Your task to perform on an android device: Go to sound settings Image 0: 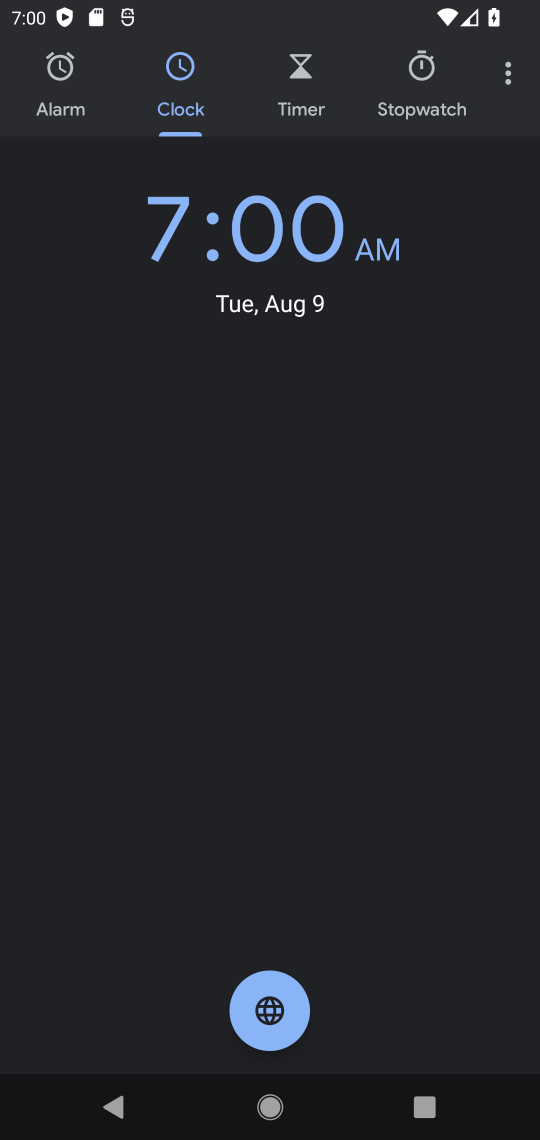
Step 0: press back button
Your task to perform on an android device: Go to sound settings Image 1: 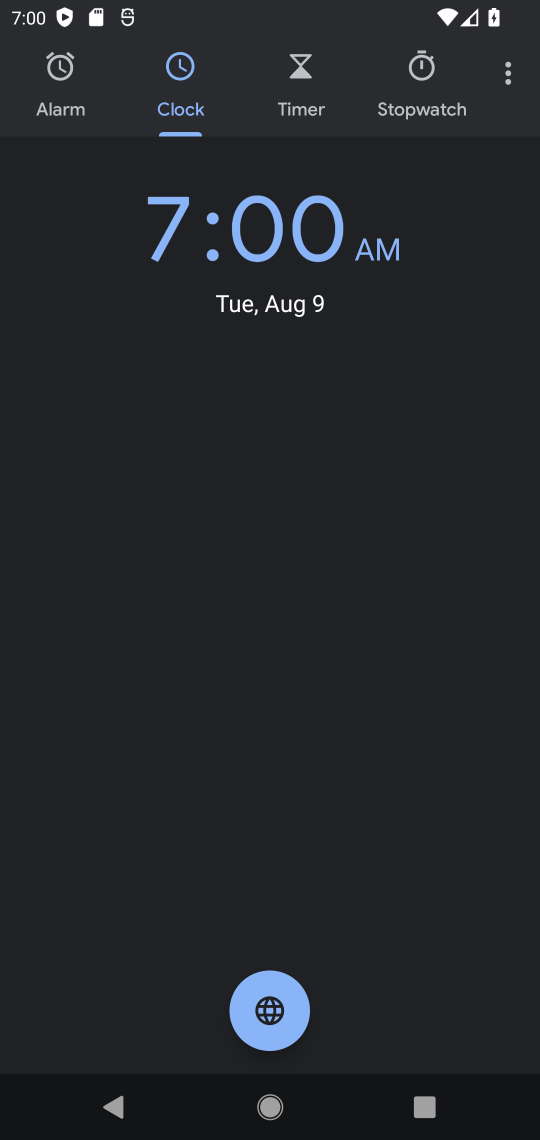
Step 1: press home button
Your task to perform on an android device: Go to sound settings Image 2: 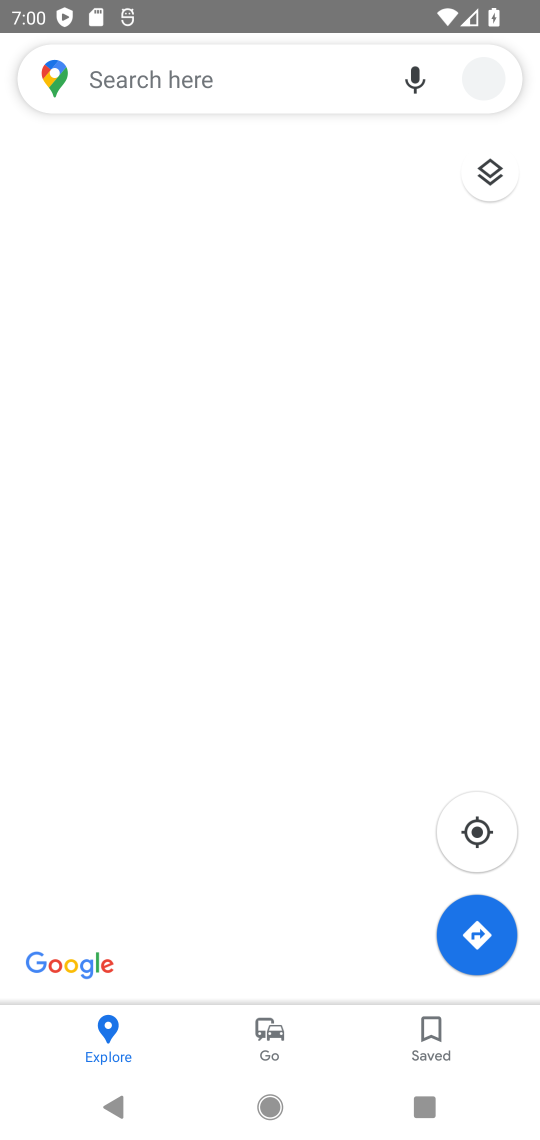
Step 2: press back button
Your task to perform on an android device: Go to sound settings Image 3: 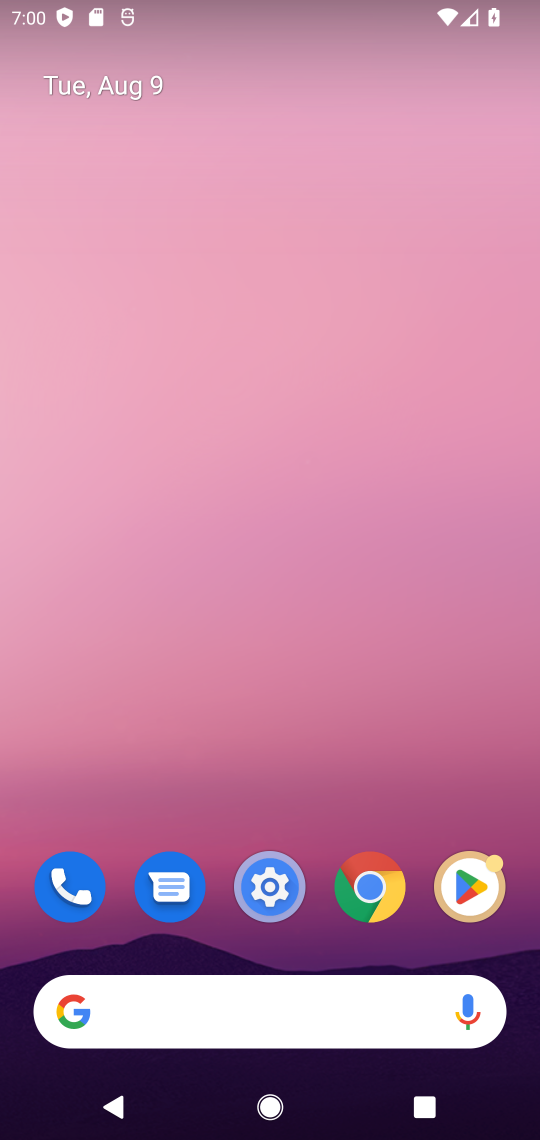
Step 3: drag from (322, 934) to (225, 294)
Your task to perform on an android device: Go to sound settings Image 4: 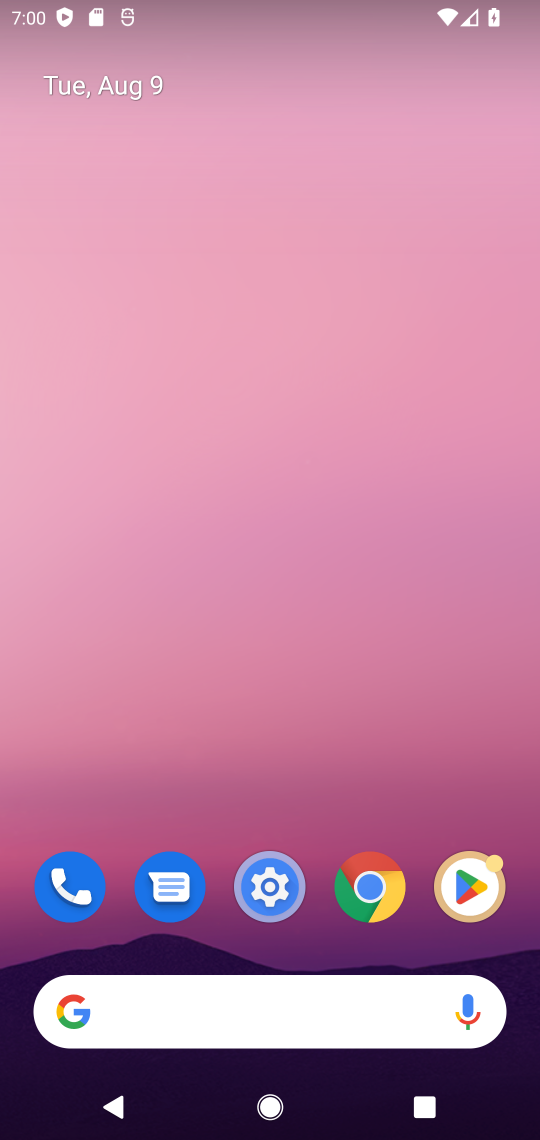
Step 4: drag from (333, 872) to (287, 540)
Your task to perform on an android device: Go to sound settings Image 5: 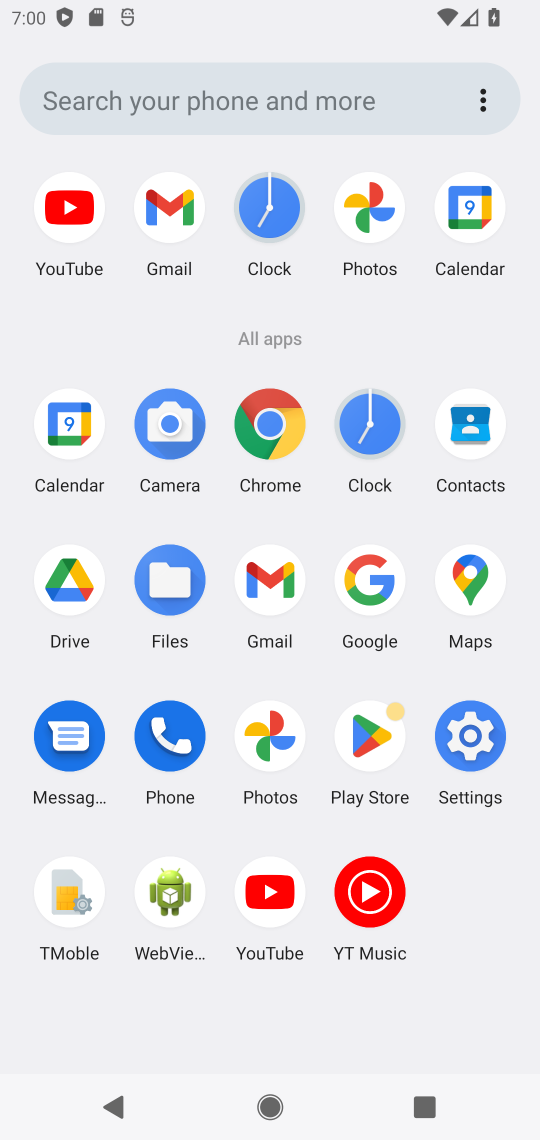
Step 5: click (479, 741)
Your task to perform on an android device: Go to sound settings Image 6: 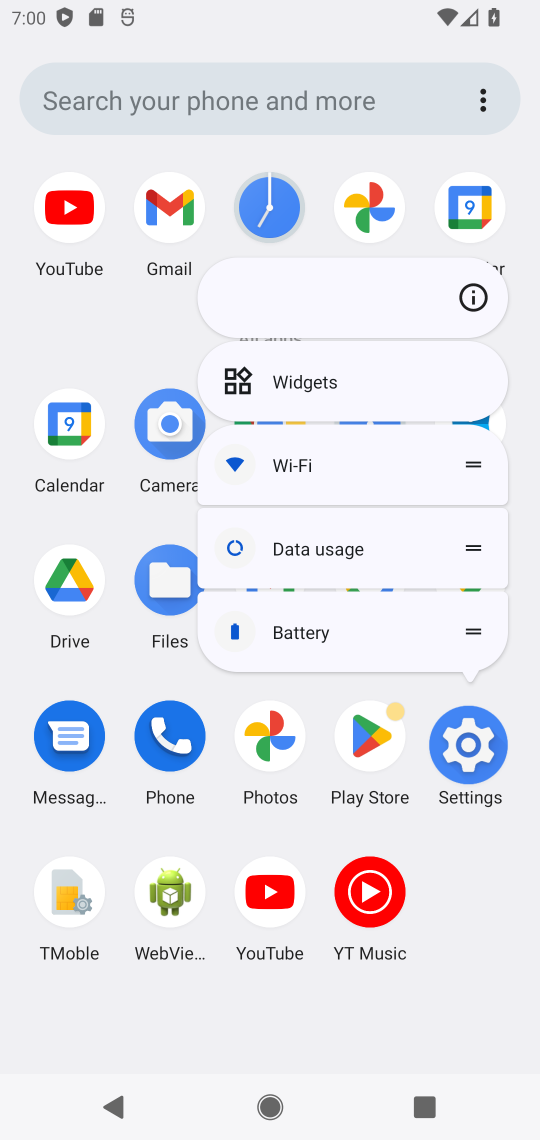
Step 6: click (471, 741)
Your task to perform on an android device: Go to sound settings Image 7: 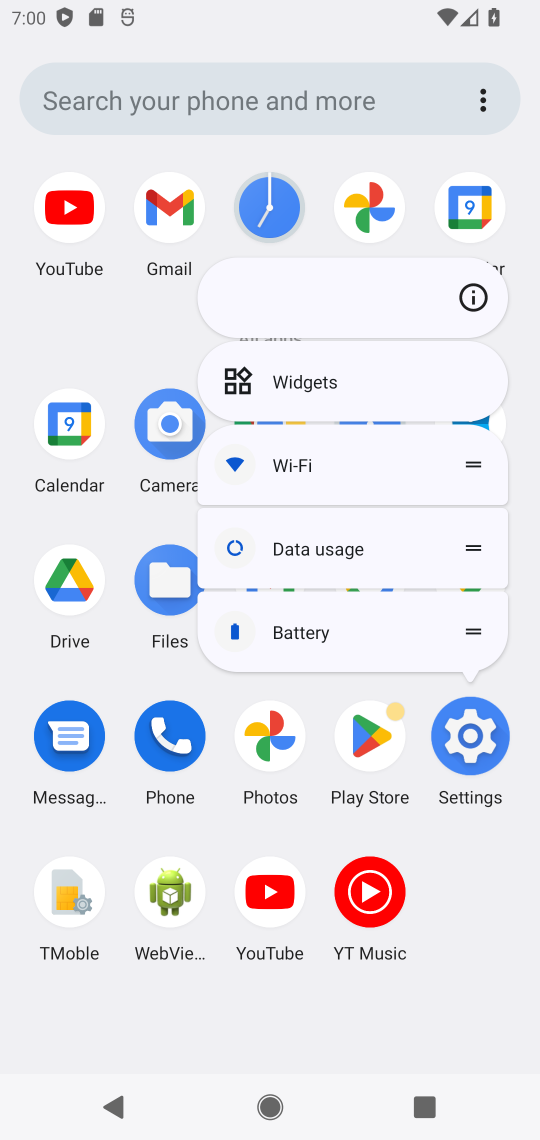
Step 7: click (471, 741)
Your task to perform on an android device: Go to sound settings Image 8: 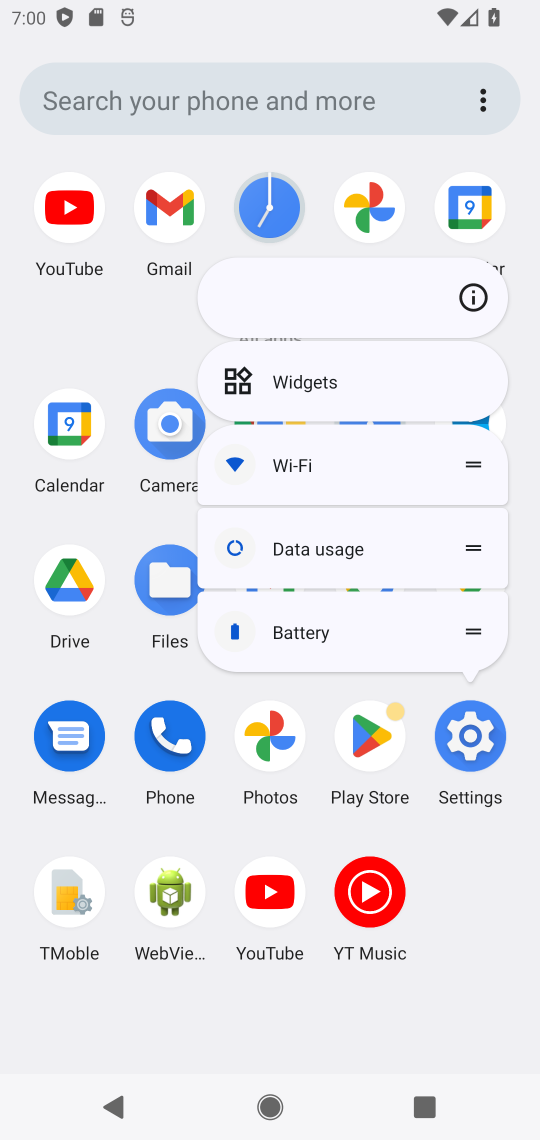
Step 8: click (464, 726)
Your task to perform on an android device: Go to sound settings Image 9: 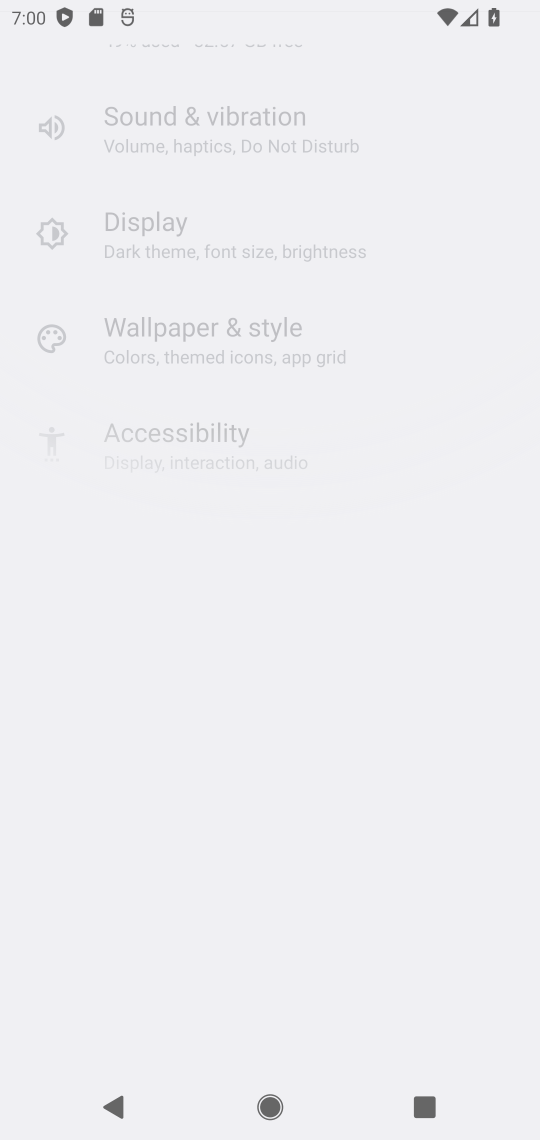
Step 9: click (463, 725)
Your task to perform on an android device: Go to sound settings Image 10: 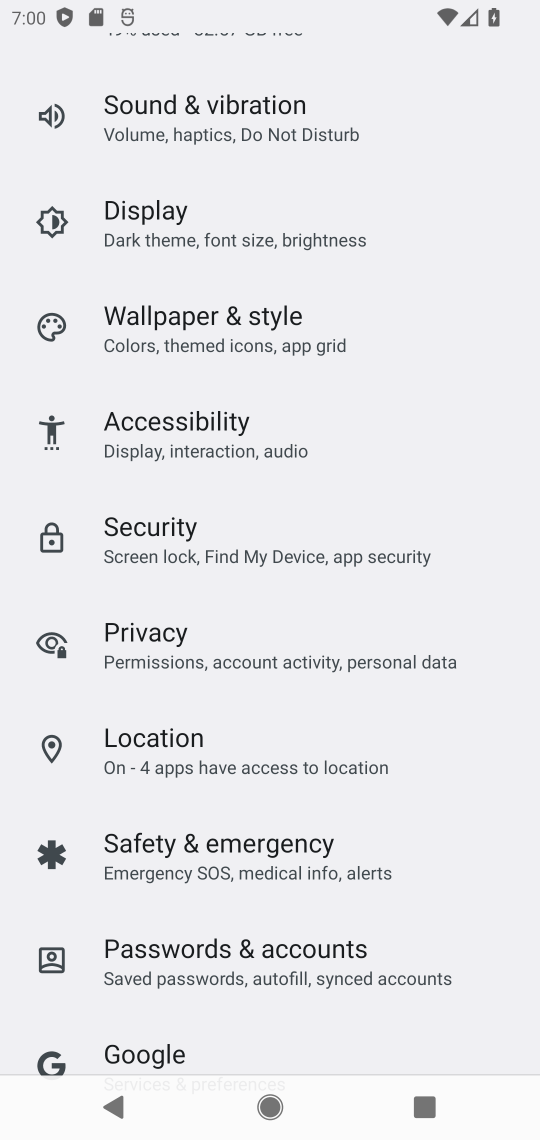
Step 10: click (463, 725)
Your task to perform on an android device: Go to sound settings Image 11: 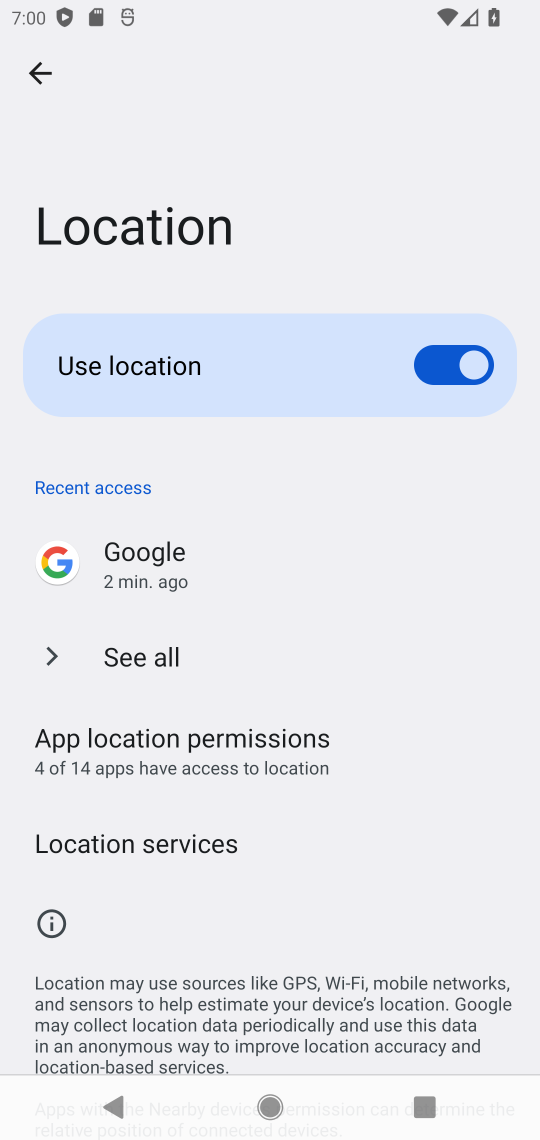
Step 11: click (43, 75)
Your task to perform on an android device: Go to sound settings Image 12: 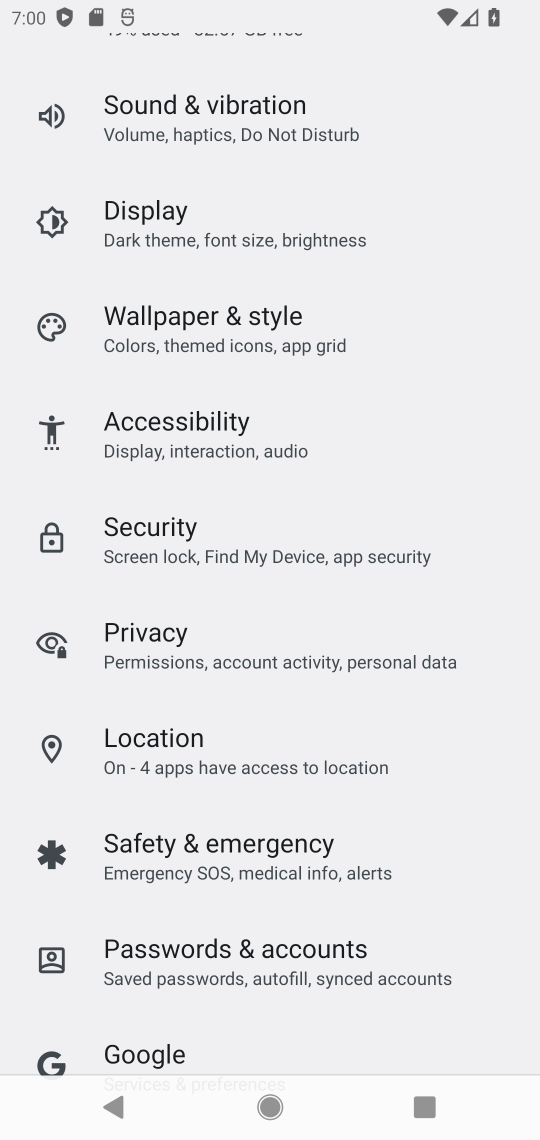
Step 12: drag from (210, 565) to (216, 726)
Your task to perform on an android device: Go to sound settings Image 13: 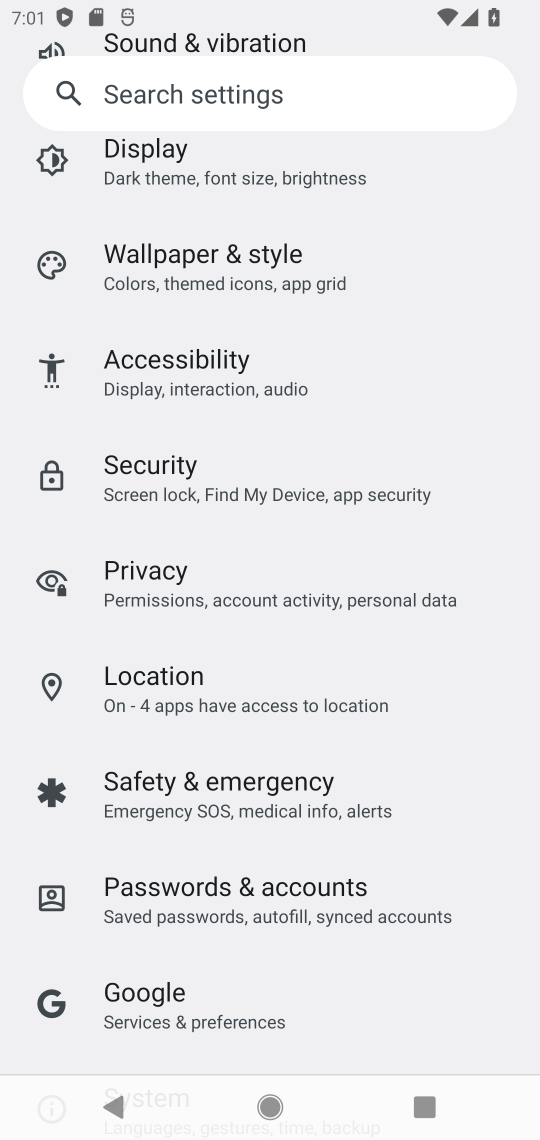
Step 13: drag from (122, 340) to (265, 834)
Your task to perform on an android device: Go to sound settings Image 14: 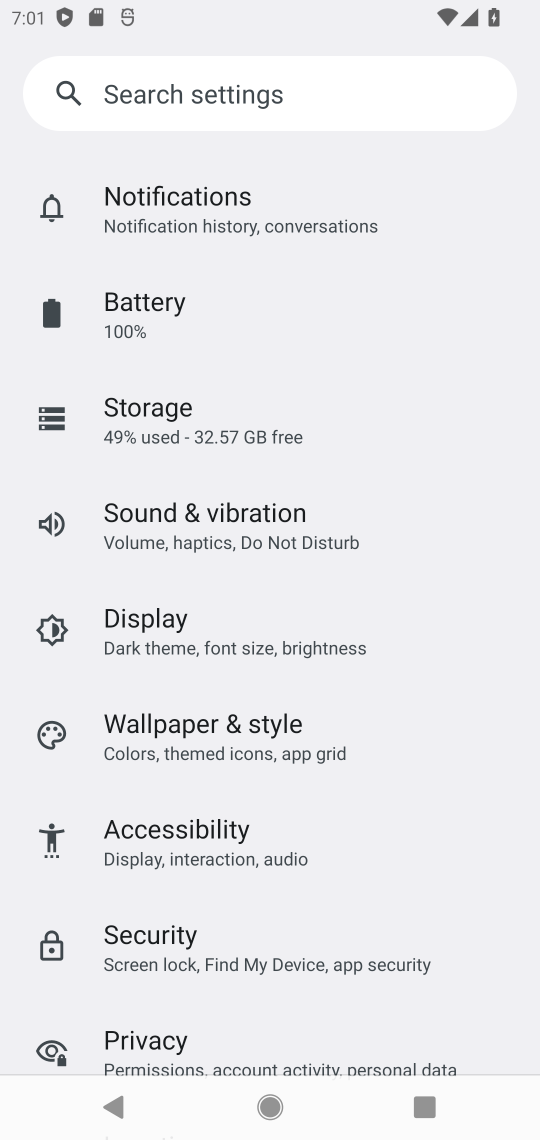
Step 14: drag from (105, 488) to (192, 843)
Your task to perform on an android device: Go to sound settings Image 15: 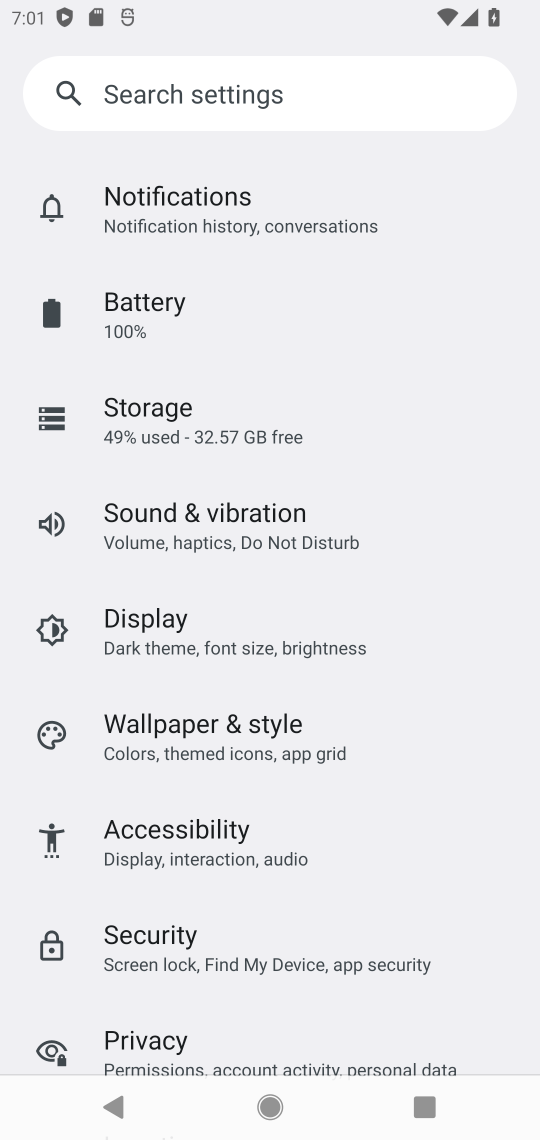
Step 15: drag from (176, 803) to (232, 900)
Your task to perform on an android device: Go to sound settings Image 16: 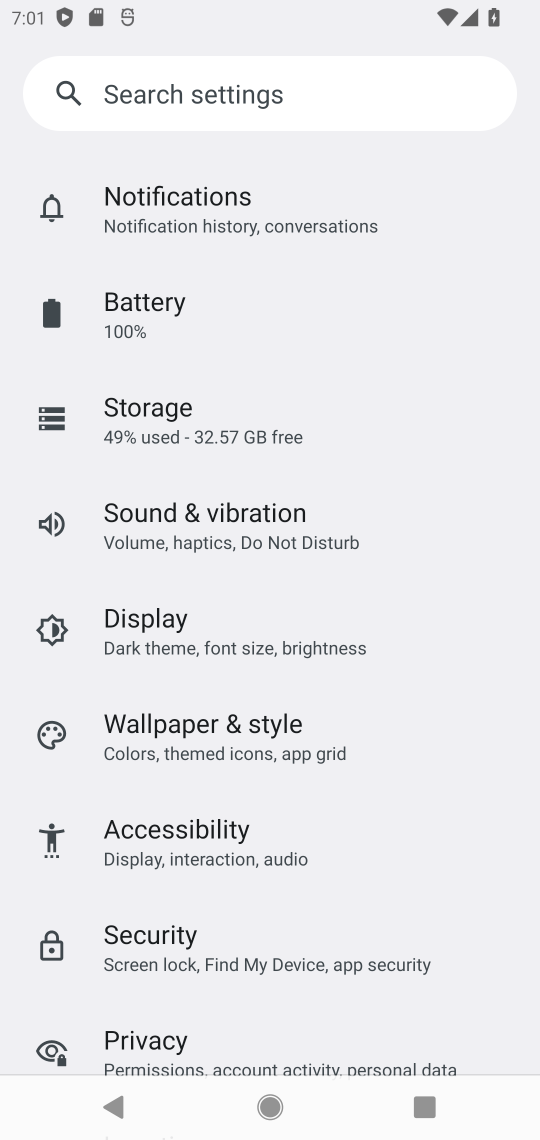
Step 16: click (157, 522)
Your task to perform on an android device: Go to sound settings Image 17: 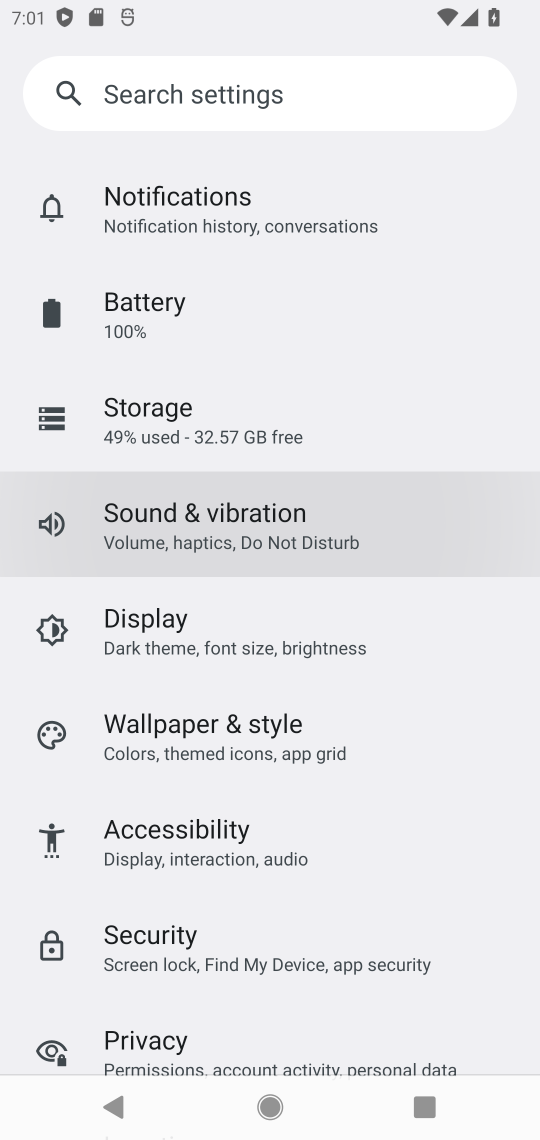
Step 17: click (161, 527)
Your task to perform on an android device: Go to sound settings Image 18: 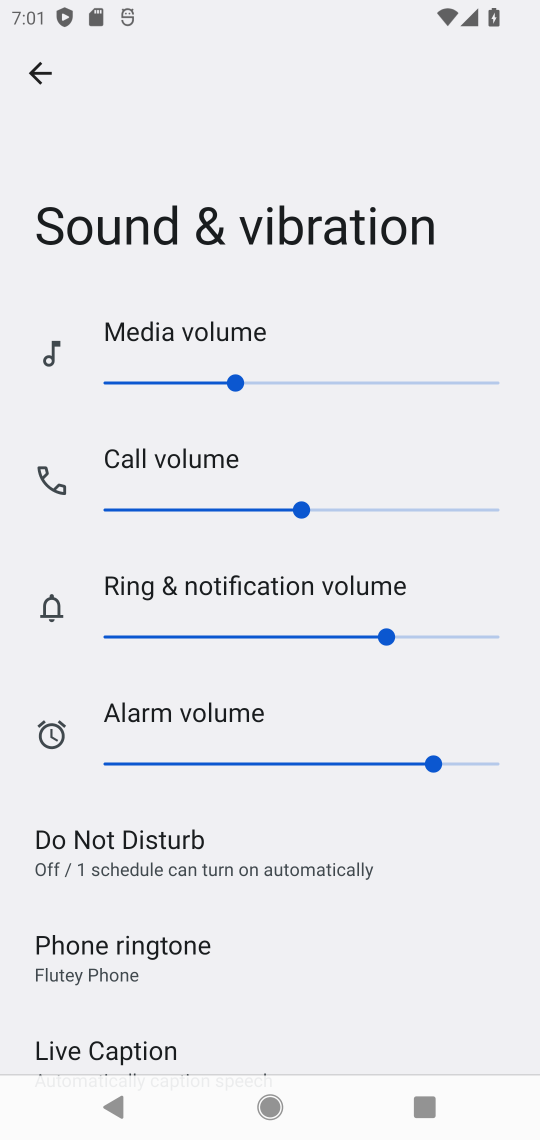
Step 18: task complete